Your task to perform on an android device: Go to Reddit.com Image 0: 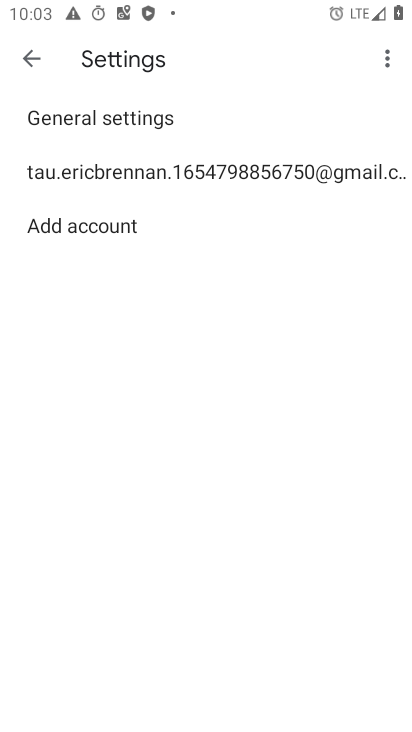
Step 0: press home button
Your task to perform on an android device: Go to Reddit.com Image 1: 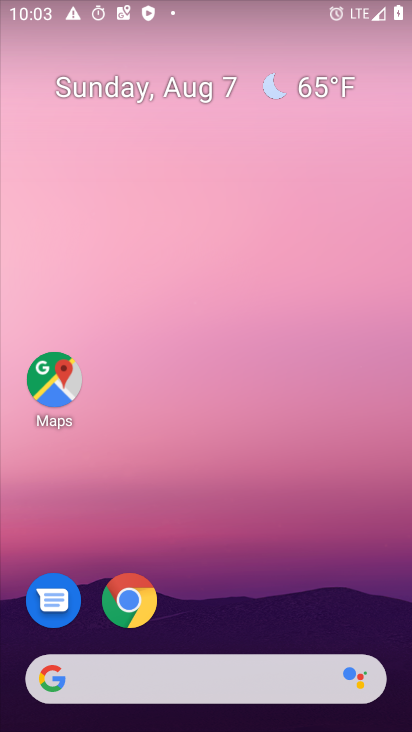
Step 1: click (116, 598)
Your task to perform on an android device: Go to Reddit.com Image 2: 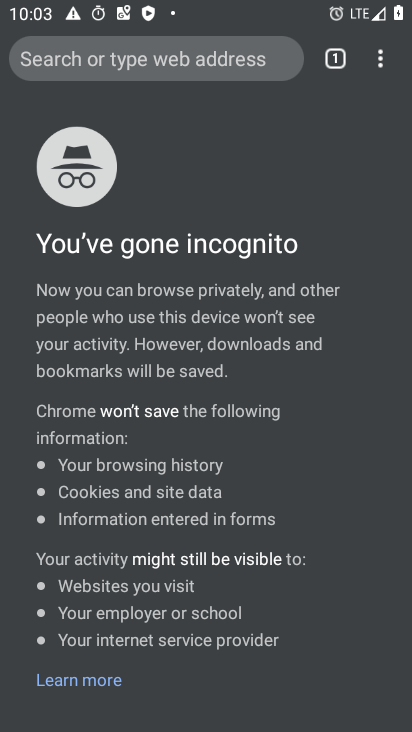
Step 2: click (334, 61)
Your task to perform on an android device: Go to Reddit.com Image 3: 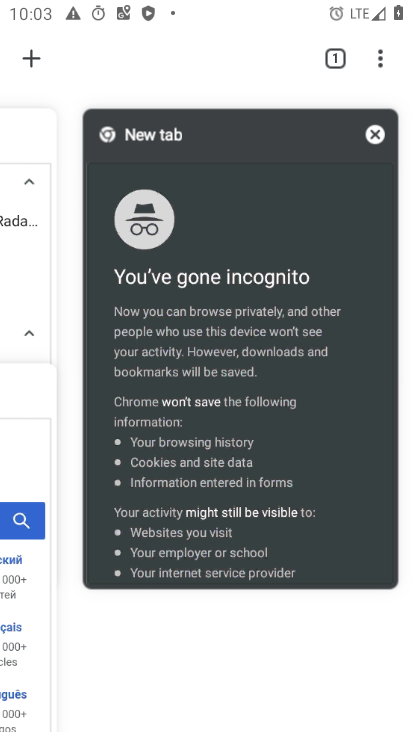
Step 3: click (371, 134)
Your task to perform on an android device: Go to Reddit.com Image 4: 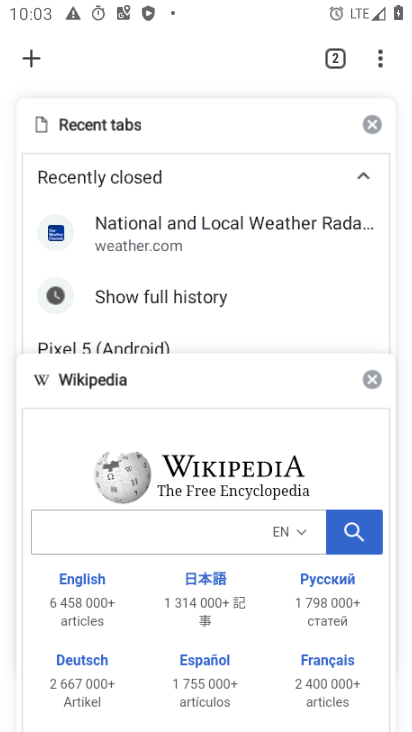
Step 4: click (373, 129)
Your task to perform on an android device: Go to Reddit.com Image 5: 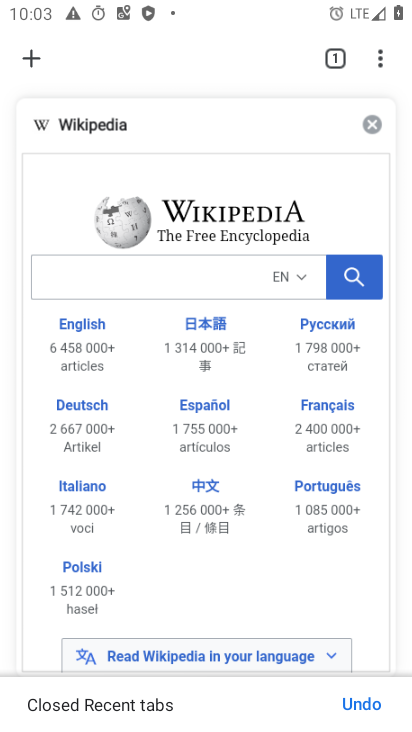
Step 5: click (373, 125)
Your task to perform on an android device: Go to Reddit.com Image 6: 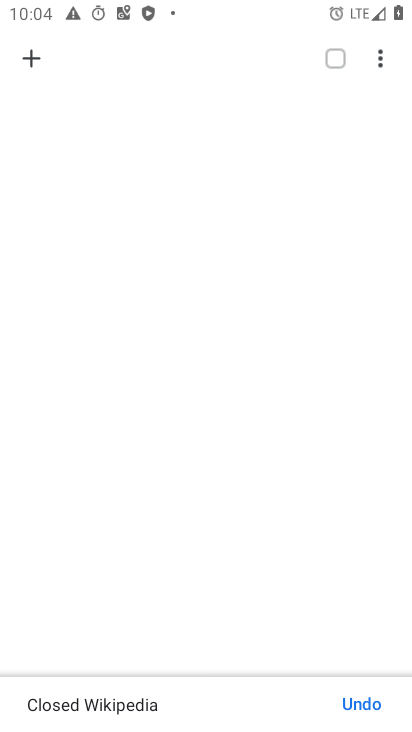
Step 6: click (34, 63)
Your task to perform on an android device: Go to Reddit.com Image 7: 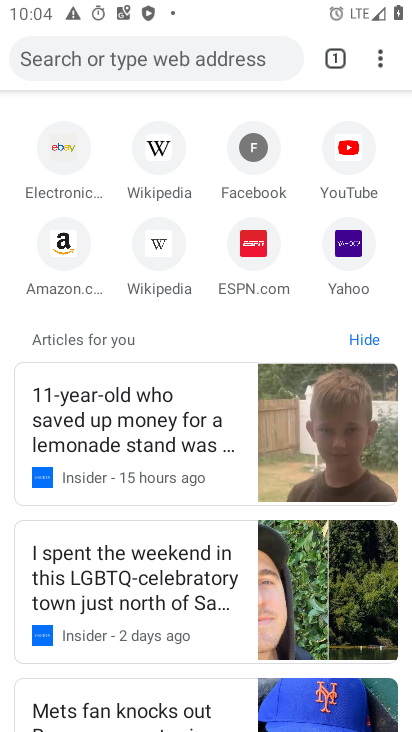
Step 7: click (164, 56)
Your task to perform on an android device: Go to Reddit.com Image 8: 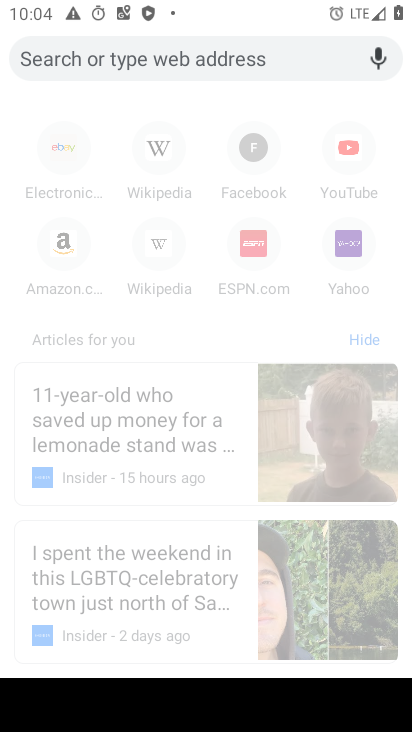
Step 8: type "www.reddit.com"
Your task to perform on an android device: Go to Reddit.com Image 9: 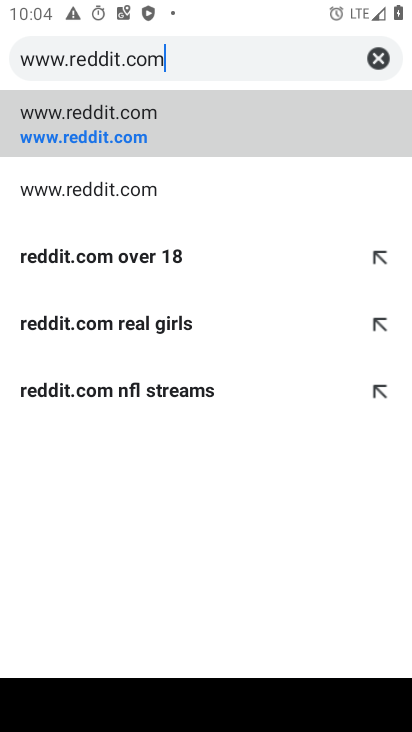
Step 9: click (76, 133)
Your task to perform on an android device: Go to Reddit.com Image 10: 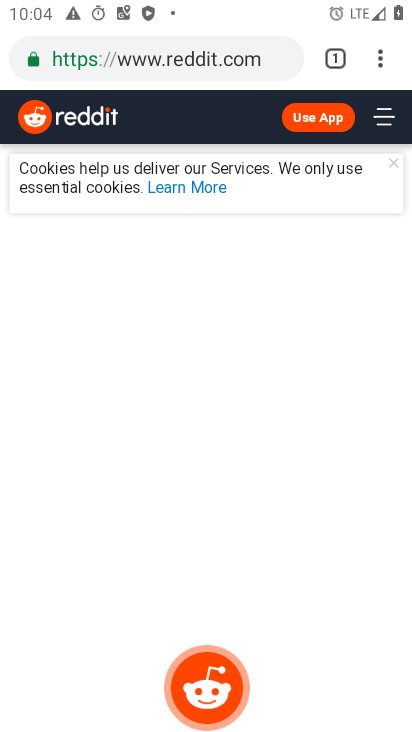
Step 10: task complete